Your task to perform on an android device: turn off picture-in-picture Image 0: 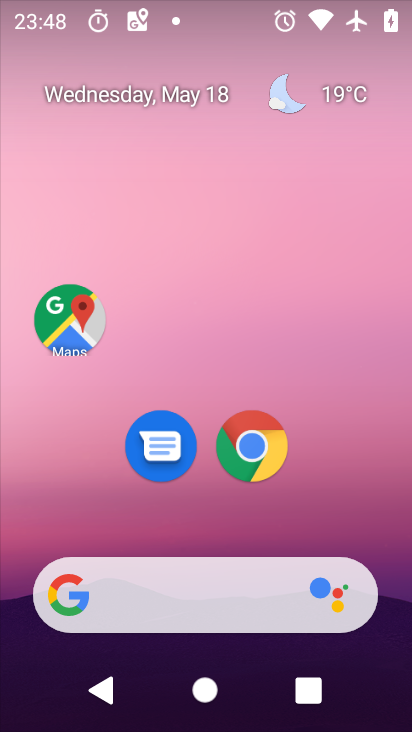
Step 0: press home button
Your task to perform on an android device: turn off picture-in-picture Image 1: 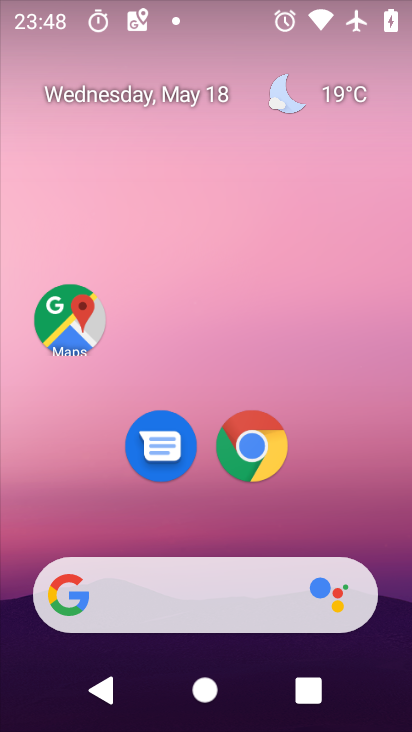
Step 1: drag from (264, 440) to (272, 402)
Your task to perform on an android device: turn off picture-in-picture Image 2: 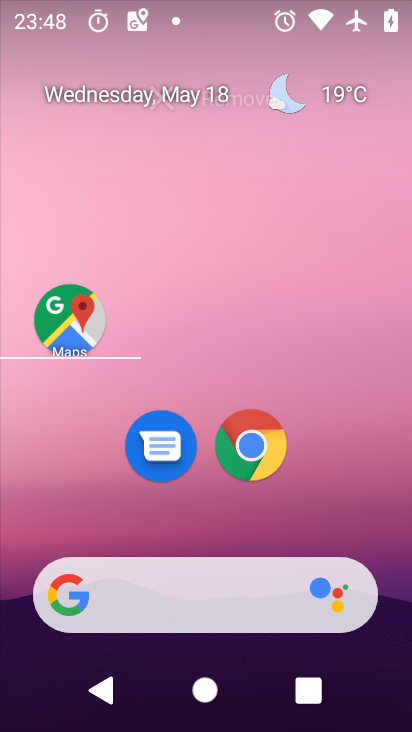
Step 2: click (274, 169)
Your task to perform on an android device: turn off picture-in-picture Image 3: 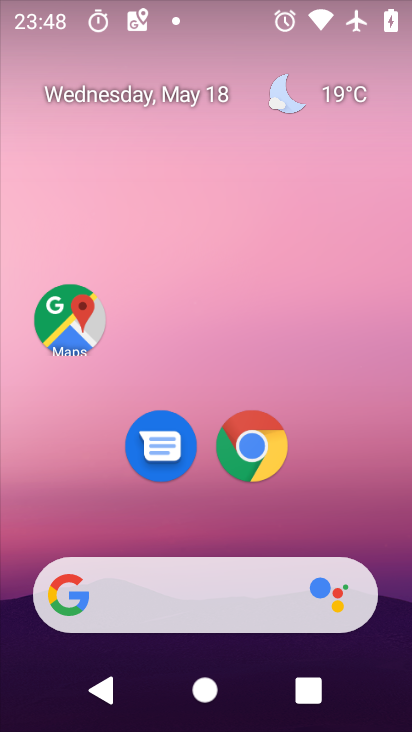
Step 3: drag from (267, 440) to (275, 399)
Your task to perform on an android device: turn off picture-in-picture Image 4: 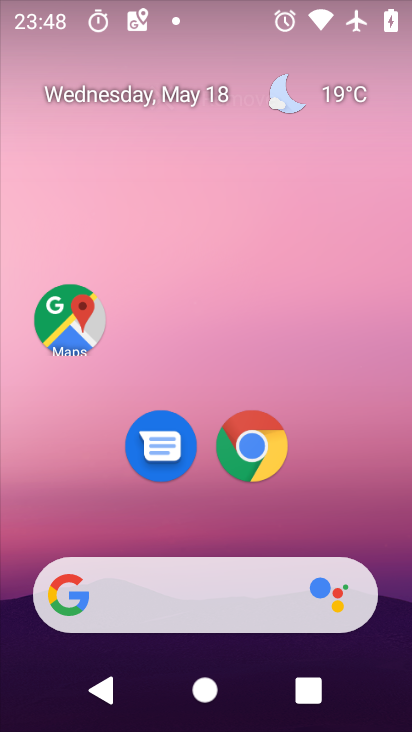
Step 4: click (289, 168)
Your task to perform on an android device: turn off picture-in-picture Image 5: 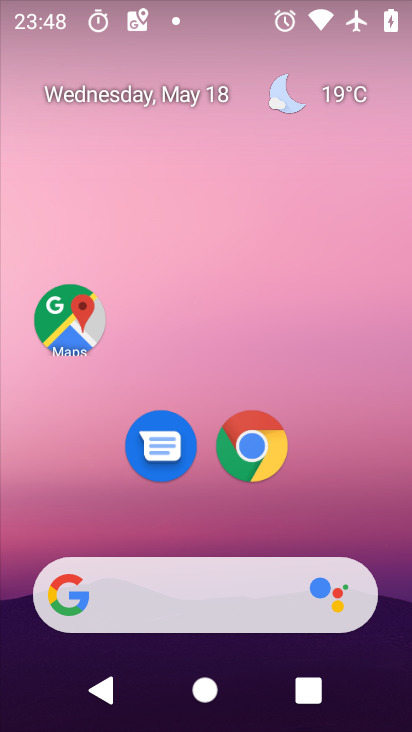
Step 5: click (250, 416)
Your task to perform on an android device: turn off picture-in-picture Image 6: 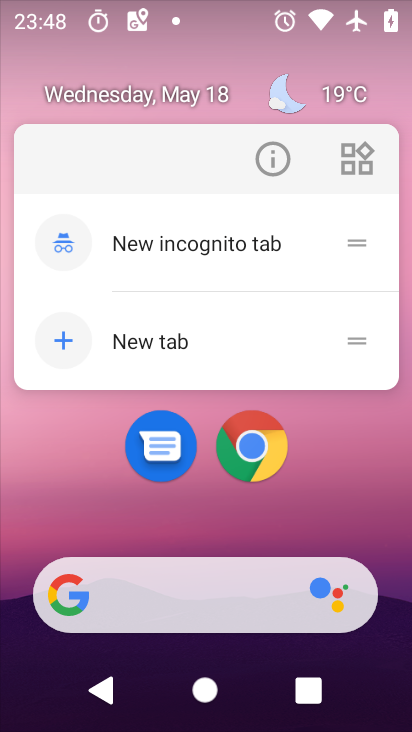
Step 6: click (270, 150)
Your task to perform on an android device: turn off picture-in-picture Image 7: 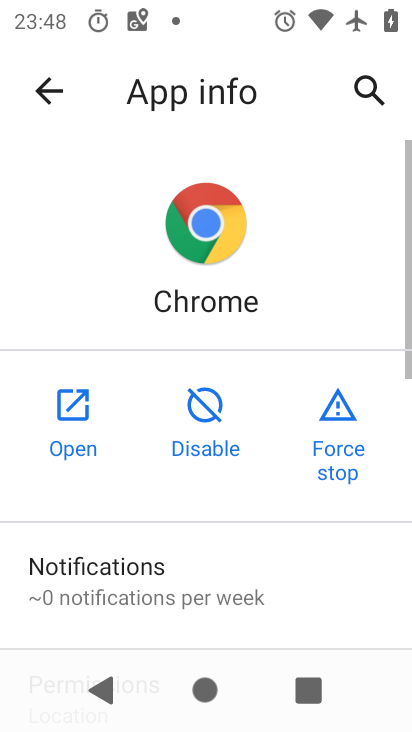
Step 7: drag from (198, 599) to (338, 149)
Your task to perform on an android device: turn off picture-in-picture Image 8: 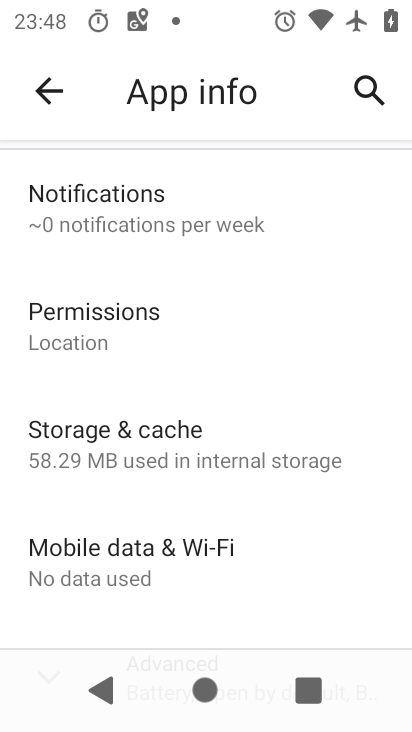
Step 8: drag from (244, 601) to (395, 37)
Your task to perform on an android device: turn off picture-in-picture Image 9: 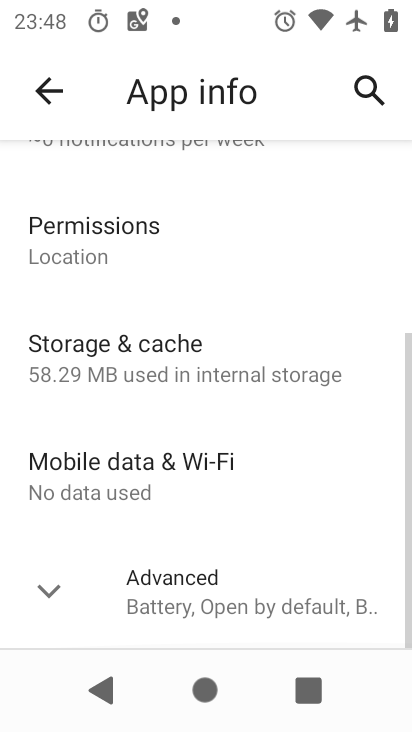
Step 9: click (188, 595)
Your task to perform on an android device: turn off picture-in-picture Image 10: 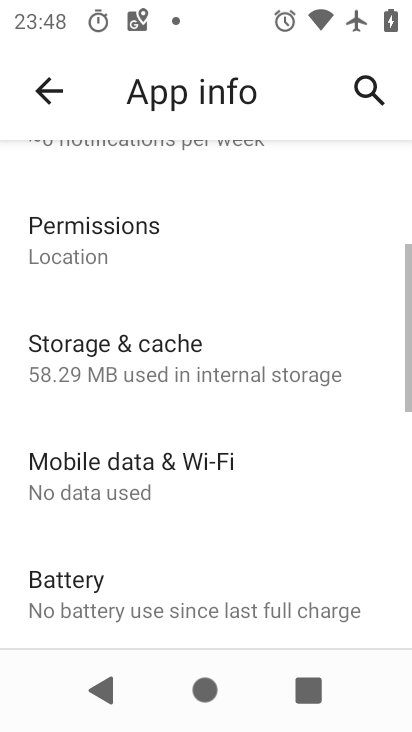
Step 10: drag from (223, 562) to (333, 99)
Your task to perform on an android device: turn off picture-in-picture Image 11: 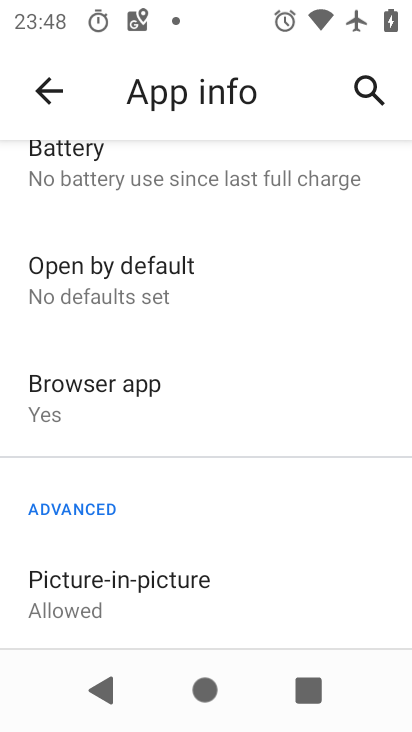
Step 11: click (158, 598)
Your task to perform on an android device: turn off picture-in-picture Image 12: 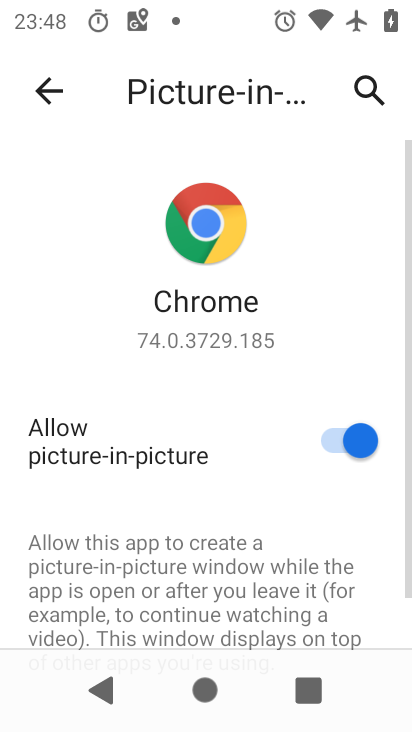
Step 12: click (334, 437)
Your task to perform on an android device: turn off picture-in-picture Image 13: 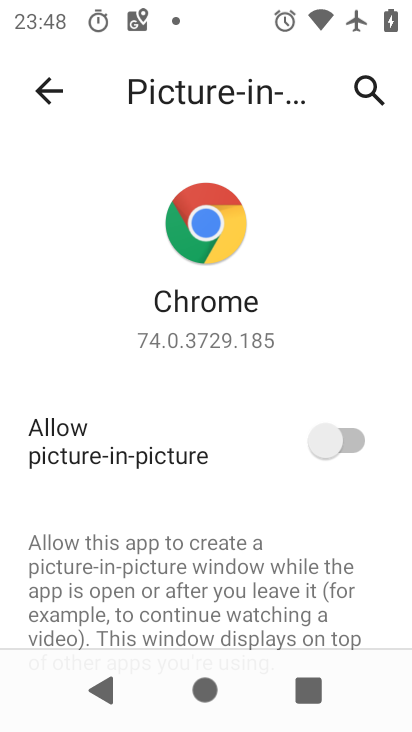
Step 13: task complete